Your task to perform on an android device: see sites visited before in the chrome app Image 0: 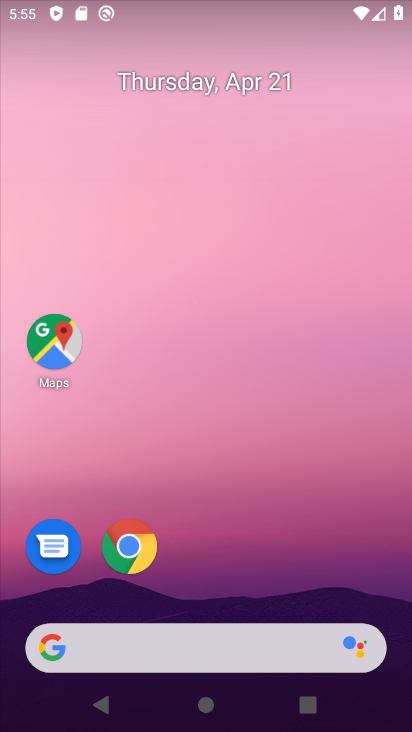
Step 0: click (124, 552)
Your task to perform on an android device: see sites visited before in the chrome app Image 1: 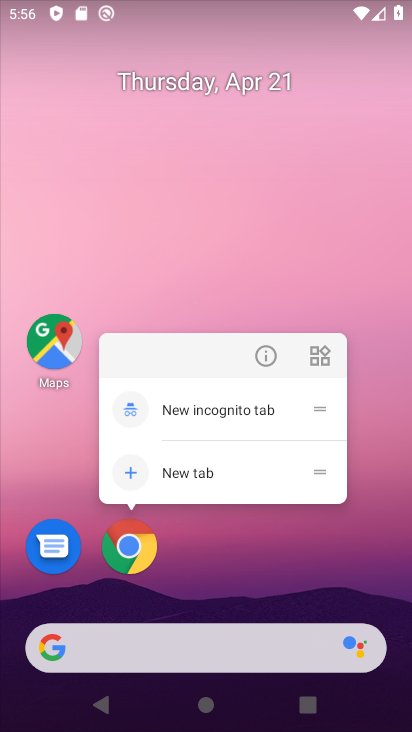
Step 1: click (127, 560)
Your task to perform on an android device: see sites visited before in the chrome app Image 2: 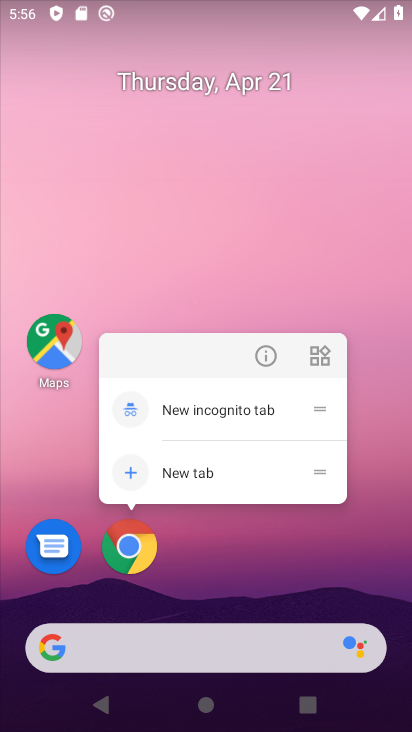
Step 2: click (121, 556)
Your task to perform on an android device: see sites visited before in the chrome app Image 3: 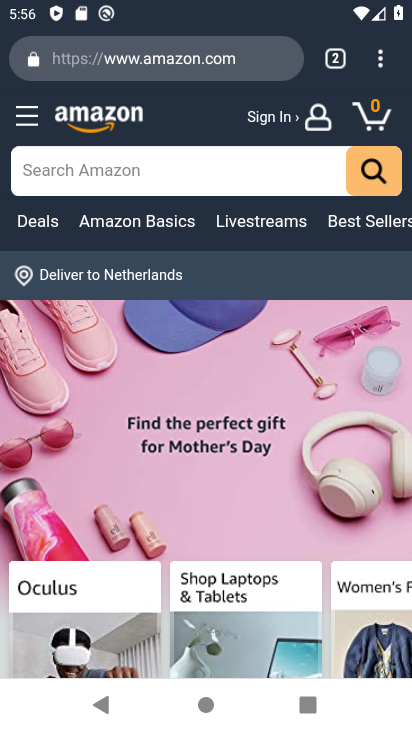
Step 3: click (381, 49)
Your task to perform on an android device: see sites visited before in the chrome app Image 4: 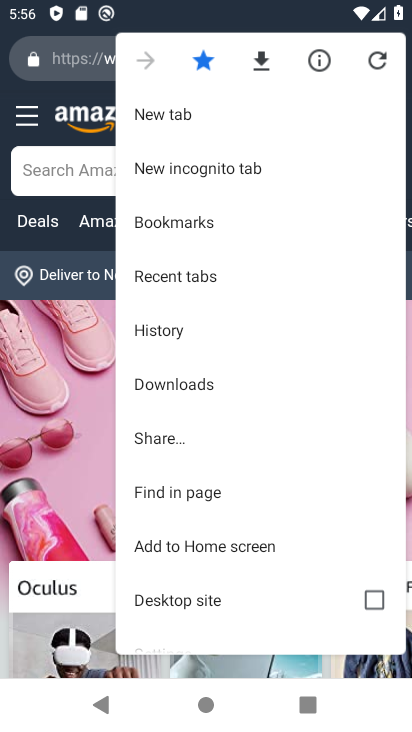
Step 4: click (159, 280)
Your task to perform on an android device: see sites visited before in the chrome app Image 5: 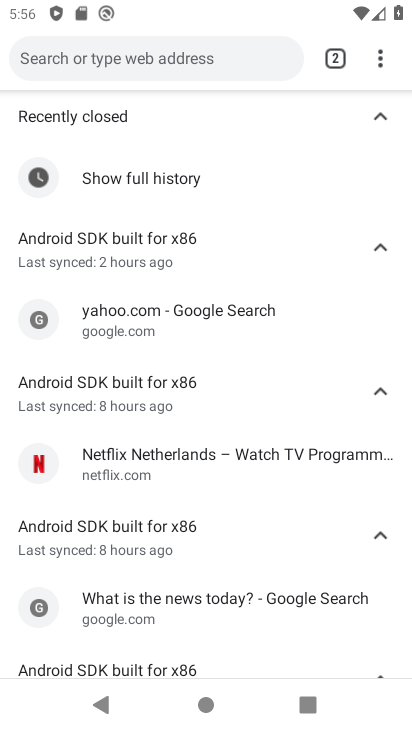
Step 5: task complete